Your task to perform on an android device: open app "Expedia: Hotels, Flights & Car" (install if not already installed), go to login, and select forgot password Image 0: 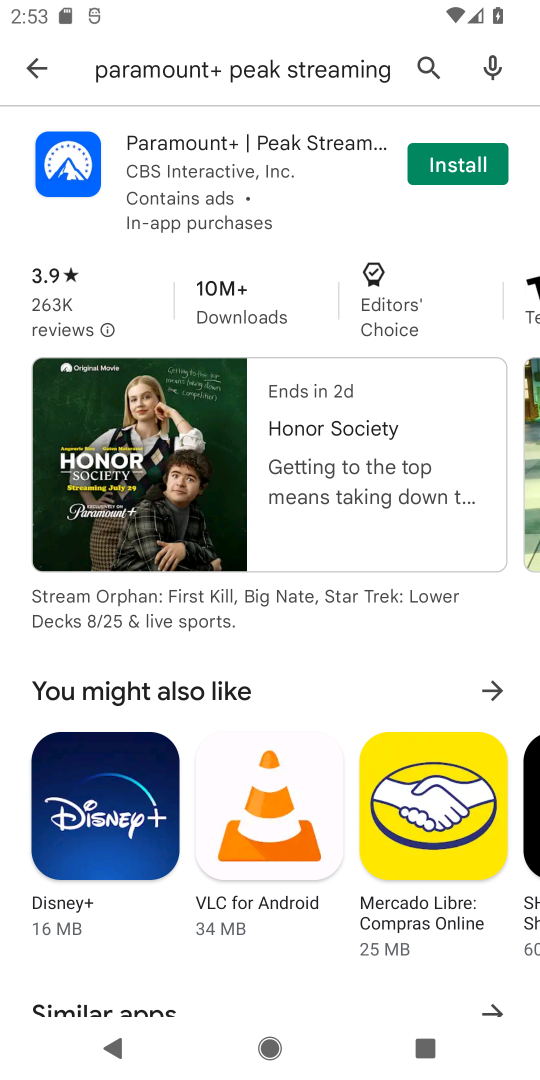
Step 0: click (38, 73)
Your task to perform on an android device: open app "Expedia: Hotels, Flights & Car" (install if not already installed), go to login, and select forgot password Image 1: 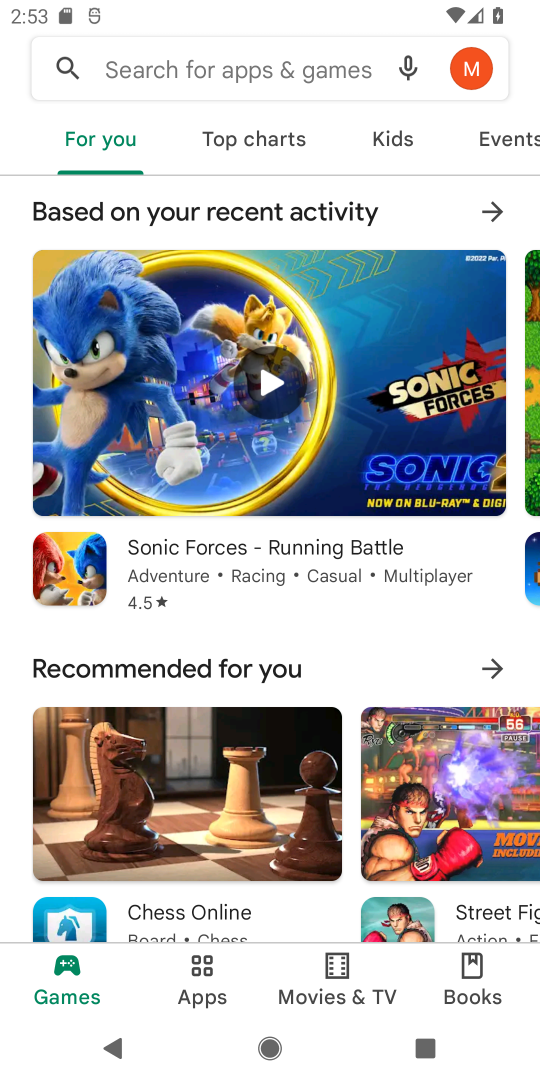
Step 1: click (176, 66)
Your task to perform on an android device: open app "Expedia: Hotels, Flights & Car" (install if not already installed), go to login, and select forgot password Image 2: 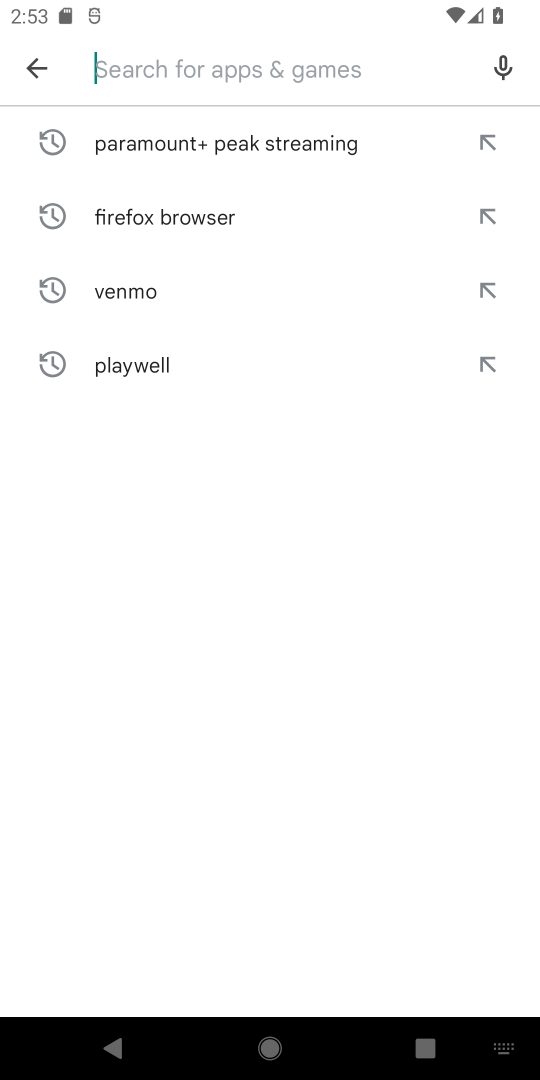
Step 2: type "Expedia: Hotels, Flights & Car"
Your task to perform on an android device: open app "Expedia: Hotels, Flights & Car" (install if not already installed), go to login, and select forgot password Image 3: 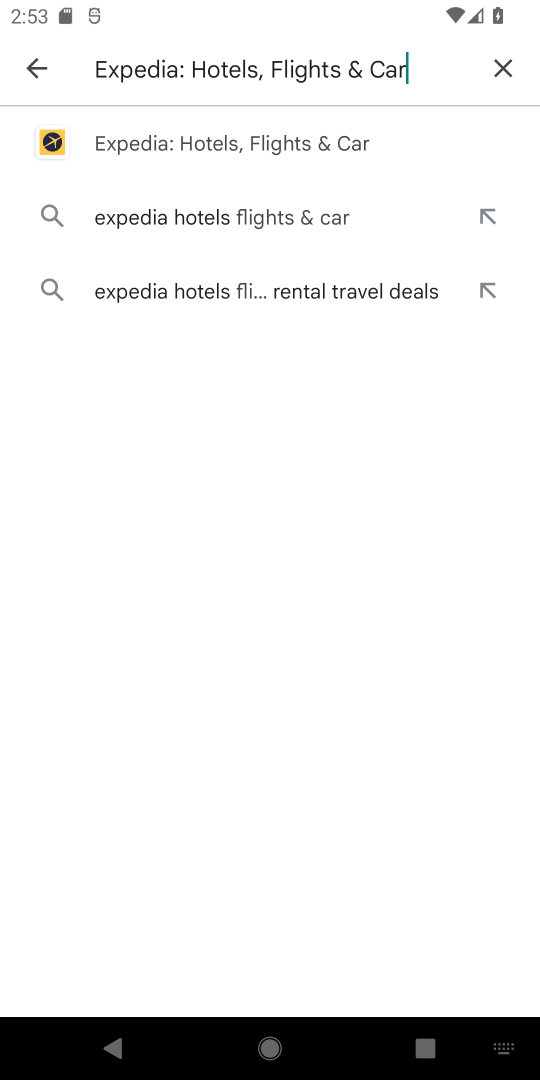
Step 3: click (312, 157)
Your task to perform on an android device: open app "Expedia: Hotels, Flights & Car" (install if not already installed), go to login, and select forgot password Image 4: 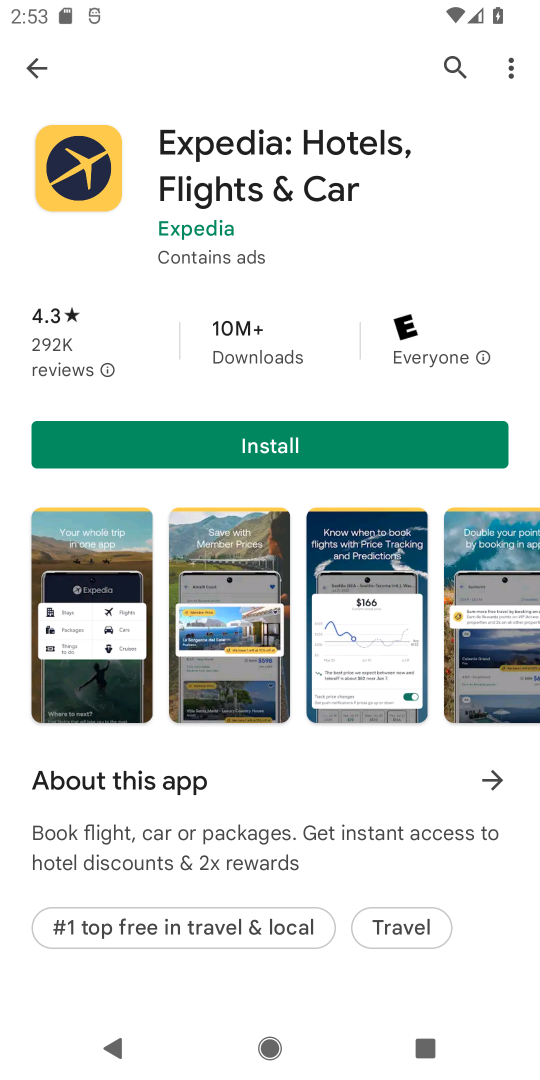
Step 4: click (168, 459)
Your task to perform on an android device: open app "Expedia: Hotels, Flights & Car" (install if not already installed), go to login, and select forgot password Image 5: 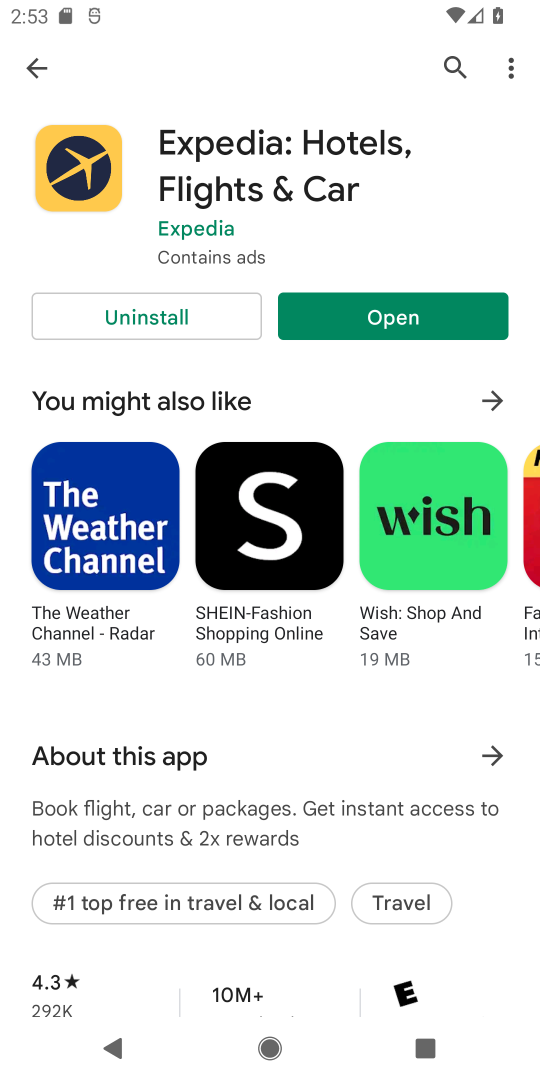
Step 5: click (428, 338)
Your task to perform on an android device: open app "Expedia: Hotels, Flights & Car" (install if not already installed), go to login, and select forgot password Image 6: 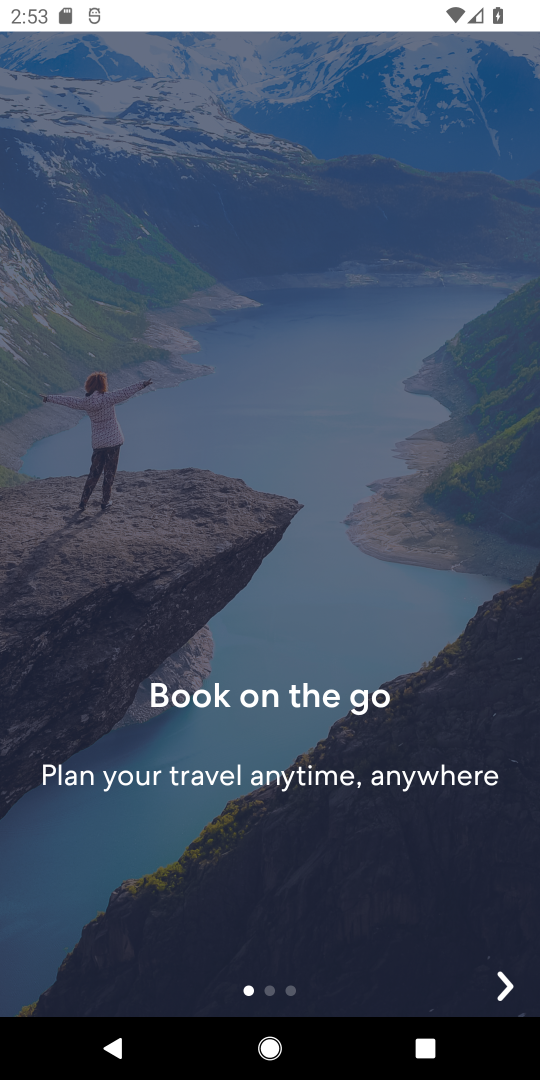
Step 6: click (507, 979)
Your task to perform on an android device: open app "Expedia: Hotels, Flights & Car" (install if not already installed), go to login, and select forgot password Image 7: 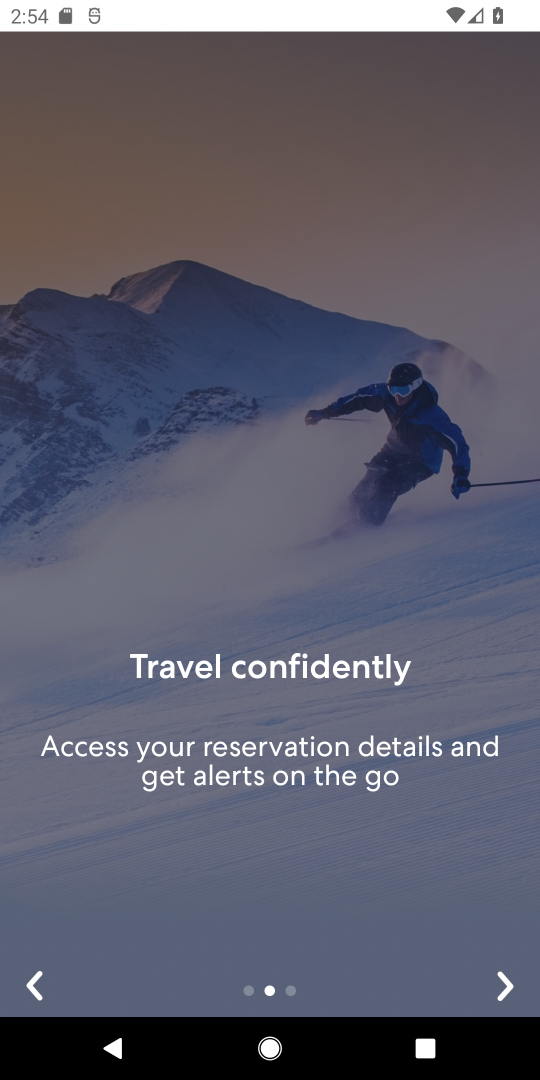
Step 7: click (507, 979)
Your task to perform on an android device: open app "Expedia: Hotels, Flights & Car" (install if not already installed), go to login, and select forgot password Image 8: 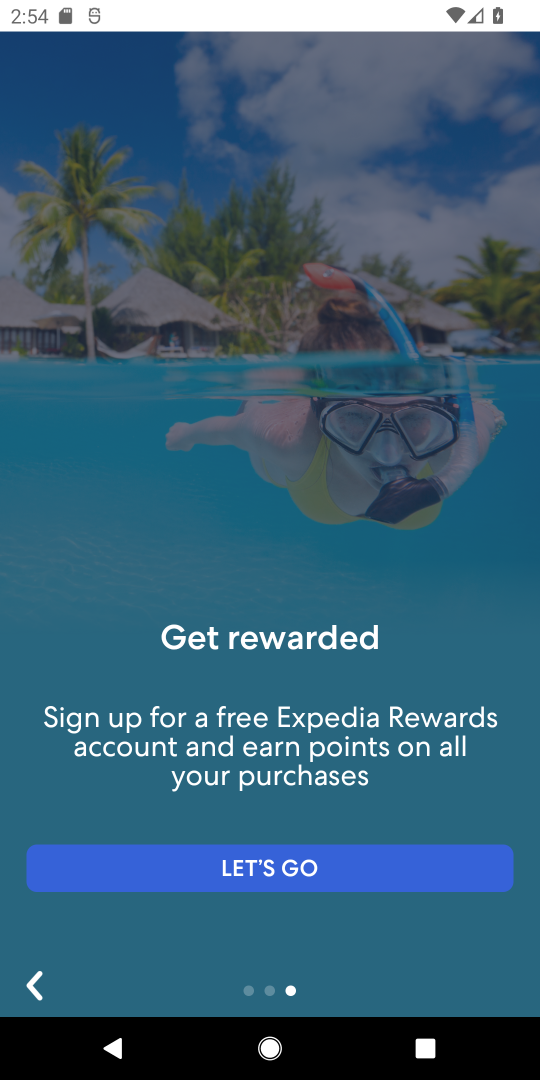
Step 8: click (430, 861)
Your task to perform on an android device: open app "Expedia: Hotels, Flights & Car" (install if not already installed), go to login, and select forgot password Image 9: 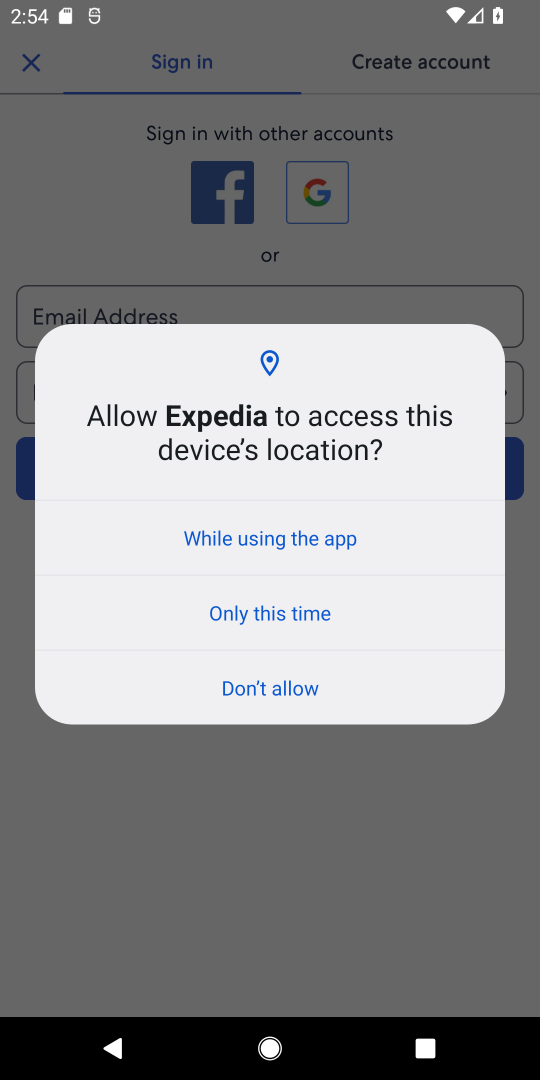
Step 9: click (289, 553)
Your task to perform on an android device: open app "Expedia: Hotels, Flights & Car" (install if not already installed), go to login, and select forgot password Image 10: 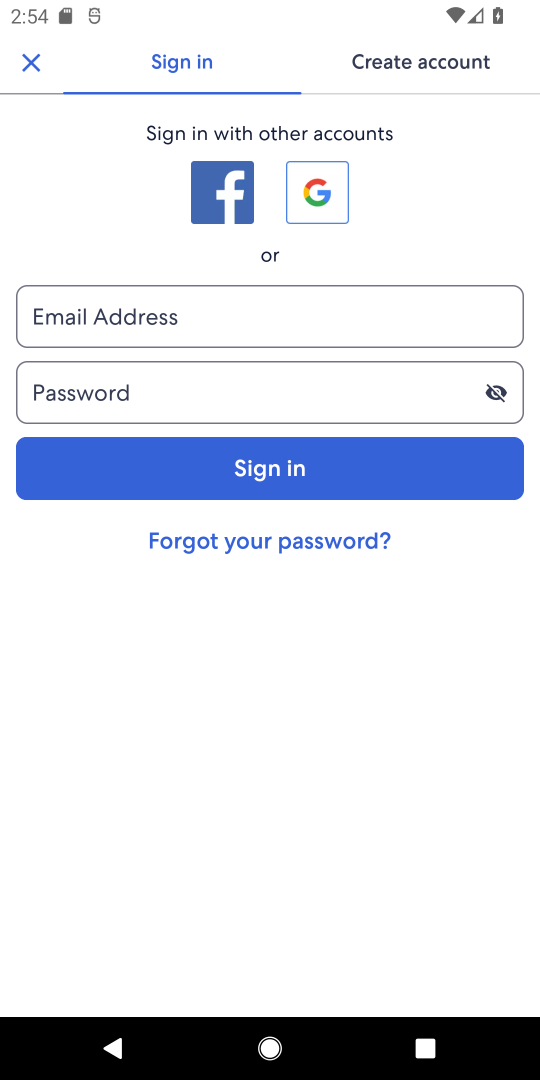
Step 10: click (268, 548)
Your task to perform on an android device: open app "Expedia: Hotels, Flights & Car" (install if not already installed), go to login, and select forgot password Image 11: 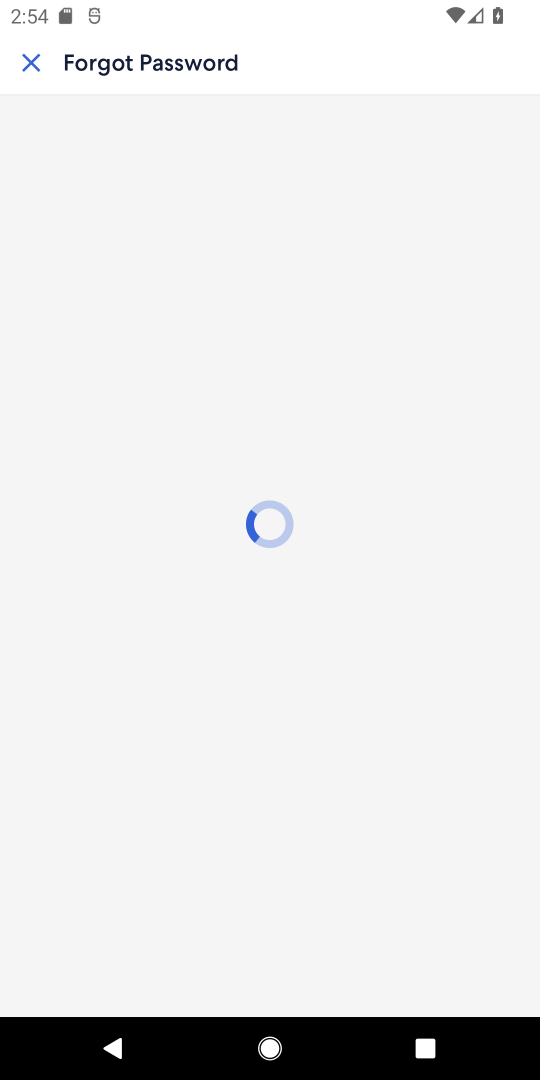
Step 11: task complete